Your task to perform on an android device: turn on data saver in the chrome app Image 0: 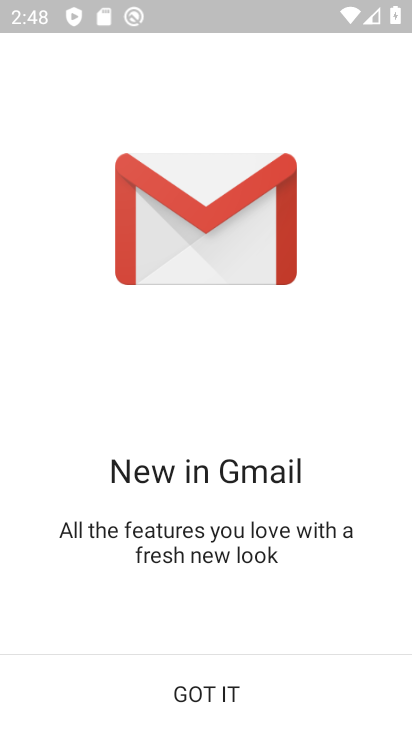
Step 0: click (230, 689)
Your task to perform on an android device: turn on data saver in the chrome app Image 1: 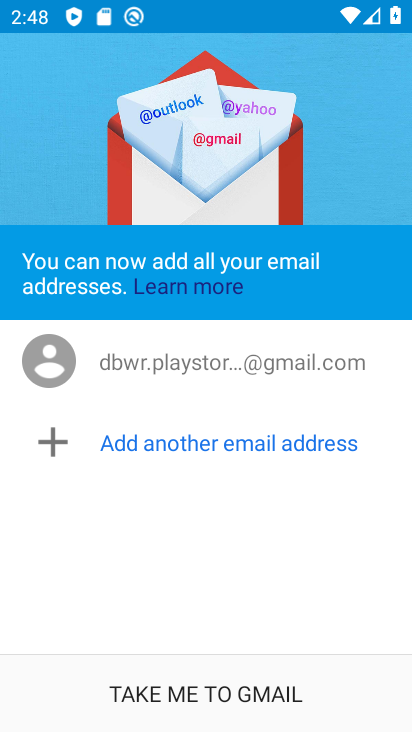
Step 1: click (198, 682)
Your task to perform on an android device: turn on data saver in the chrome app Image 2: 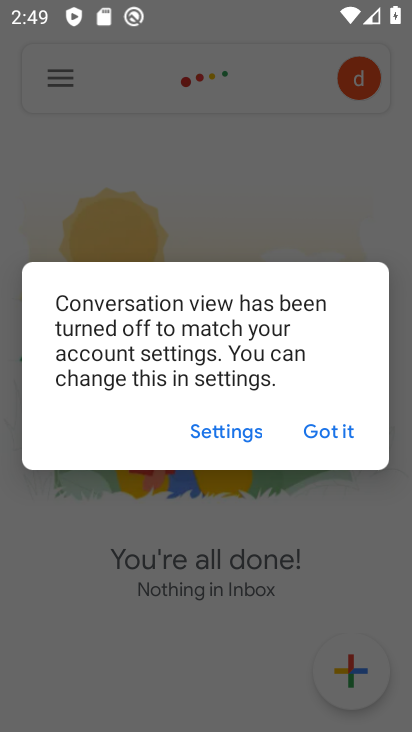
Step 2: click (336, 424)
Your task to perform on an android device: turn on data saver in the chrome app Image 3: 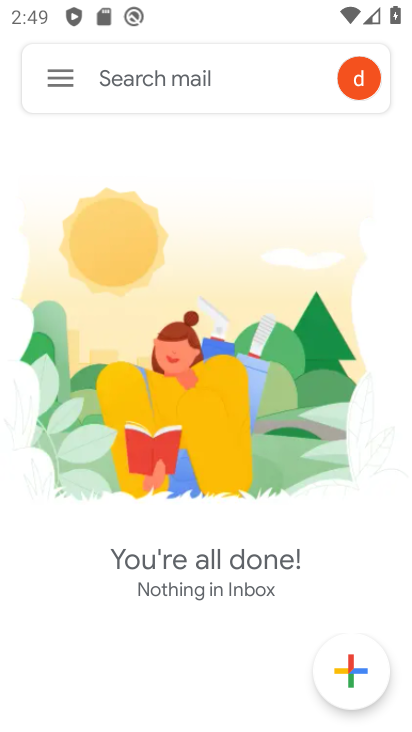
Step 3: click (77, 70)
Your task to perform on an android device: turn on data saver in the chrome app Image 4: 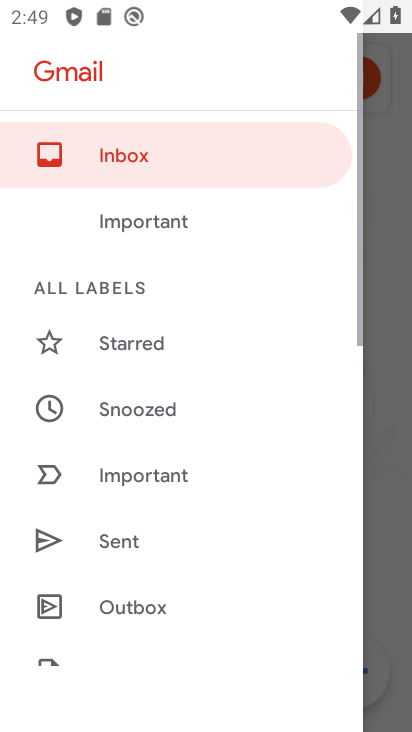
Step 4: drag from (148, 560) to (164, 39)
Your task to perform on an android device: turn on data saver in the chrome app Image 5: 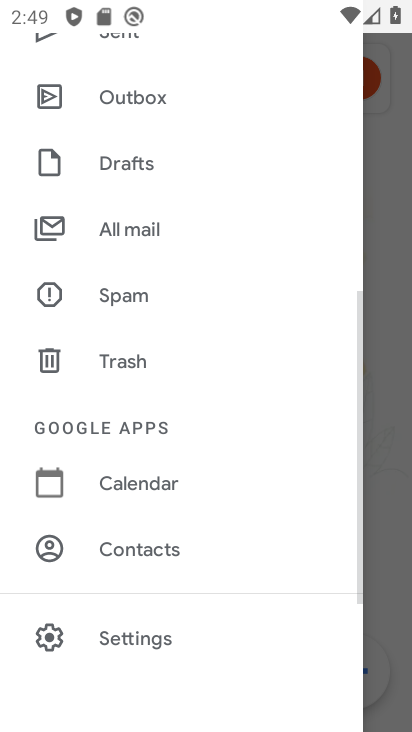
Step 5: drag from (151, 588) to (146, 68)
Your task to perform on an android device: turn on data saver in the chrome app Image 6: 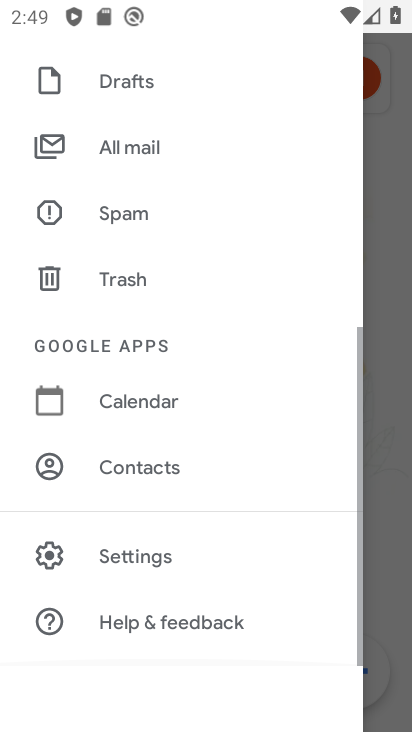
Step 6: click (133, 558)
Your task to perform on an android device: turn on data saver in the chrome app Image 7: 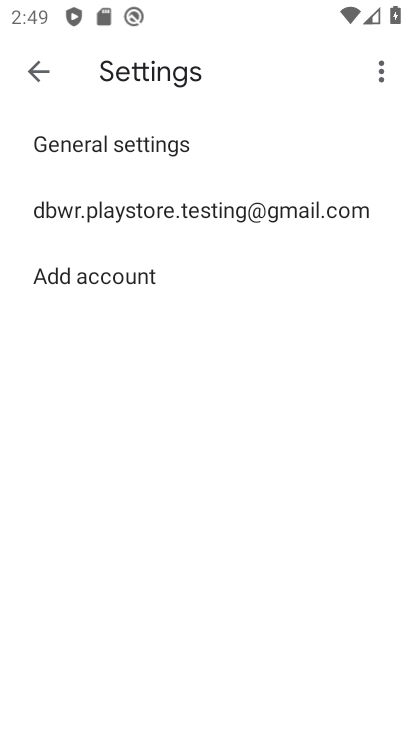
Step 7: click (125, 206)
Your task to perform on an android device: turn on data saver in the chrome app Image 8: 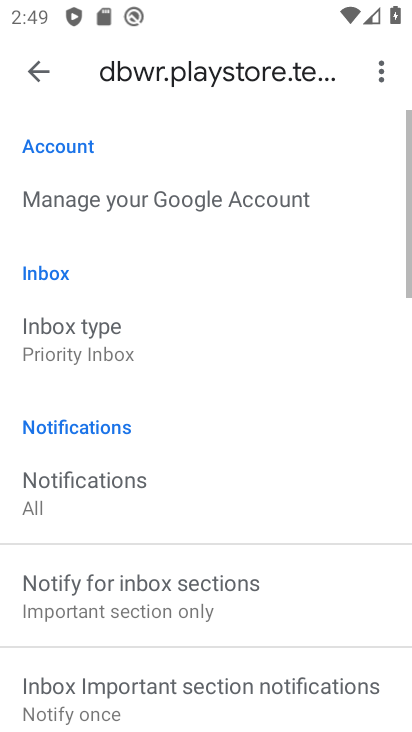
Step 8: drag from (130, 657) to (184, 74)
Your task to perform on an android device: turn on data saver in the chrome app Image 9: 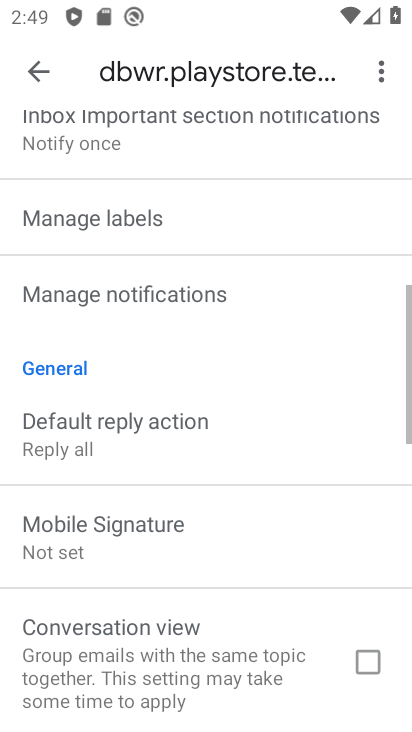
Step 9: drag from (157, 645) to (180, 137)
Your task to perform on an android device: turn on data saver in the chrome app Image 10: 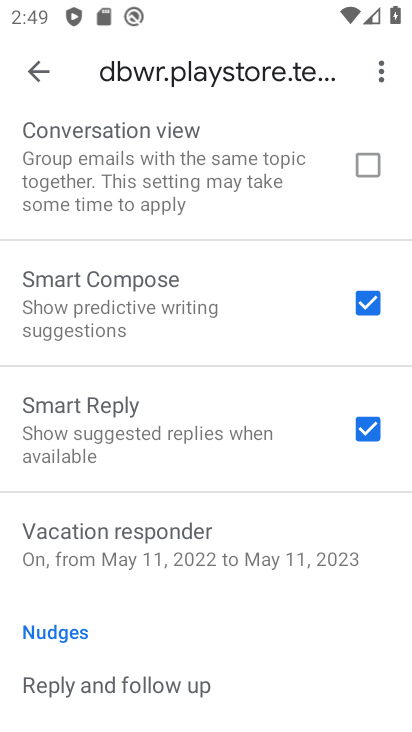
Step 10: drag from (187, 633) to (174, 726)
Your task to perform on an android device: turn on data saver in the chrome app Image 11: 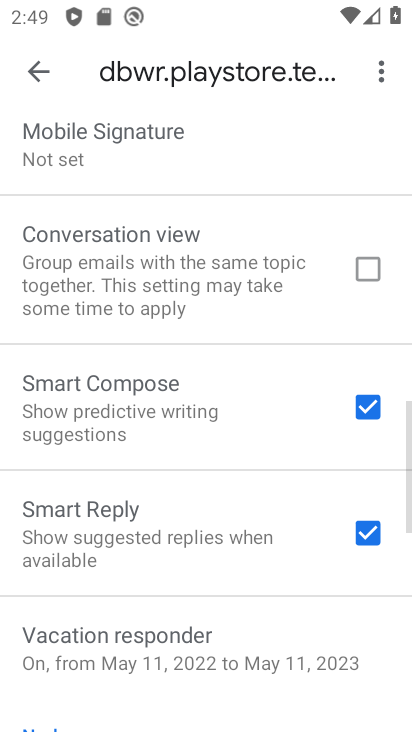
Step 11: drag from (185, 210) to (167, 725)
Your task to perform on an android device: turn on data saver in the chrome app Image 12: 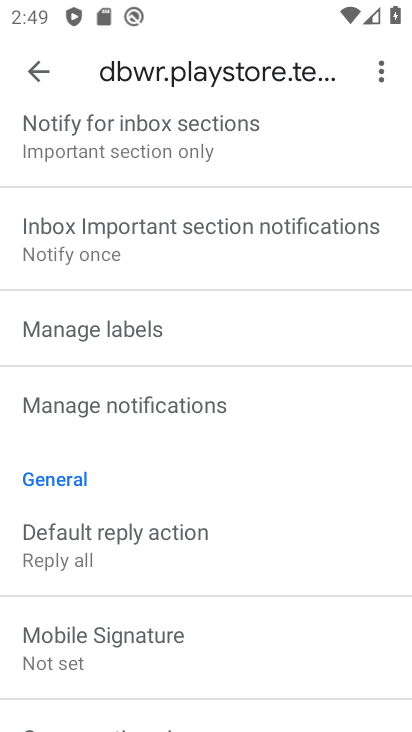
Step 12: press back button
Your task to perform on an android device: turn on data saver in the chrome app Image 13: 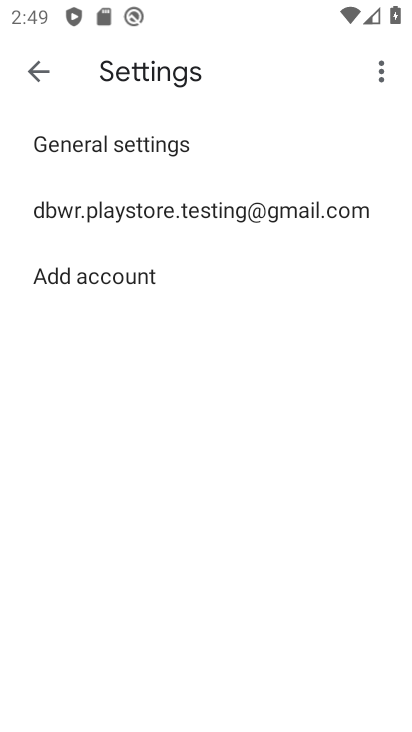
Step 13: press back button
Your task to perform on an android device: turn on data saver in the chrome app Image 14: 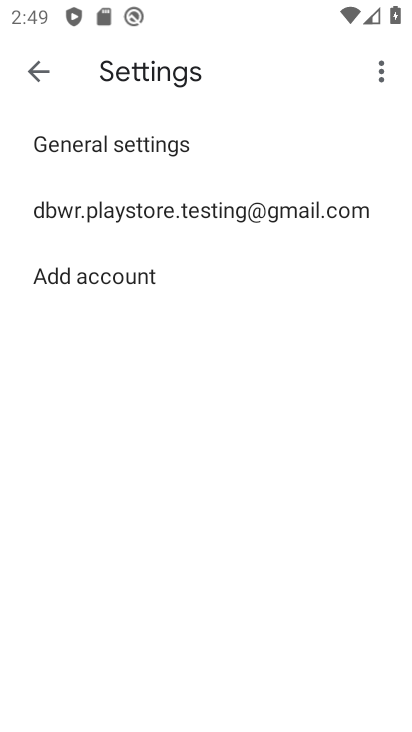
Step 14: press back button
Your task to perform on an android device: turn on data saver in the chrome app Image 15: 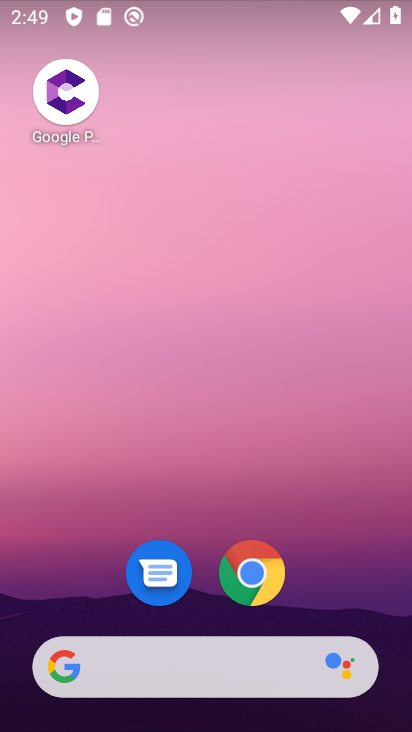
Step 15: click (253, 548)
Your task to perform on an android device: turn on data saver in the chrome app Image 16: 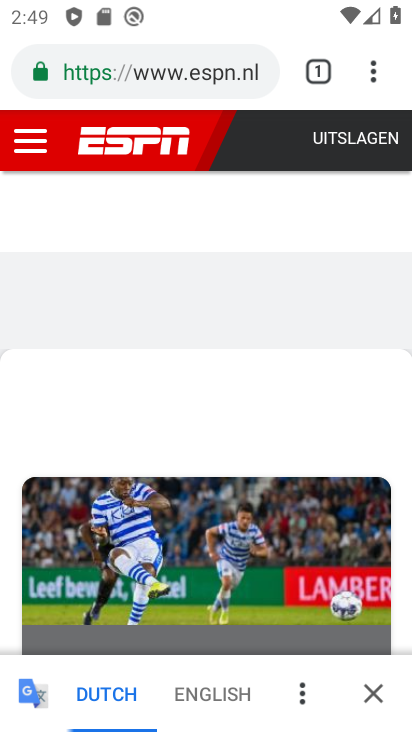
Step 16: drag from (376, 74) to (91, 558)
Your task to perform on an android device: turn on data saver in the chrome app Image 17: 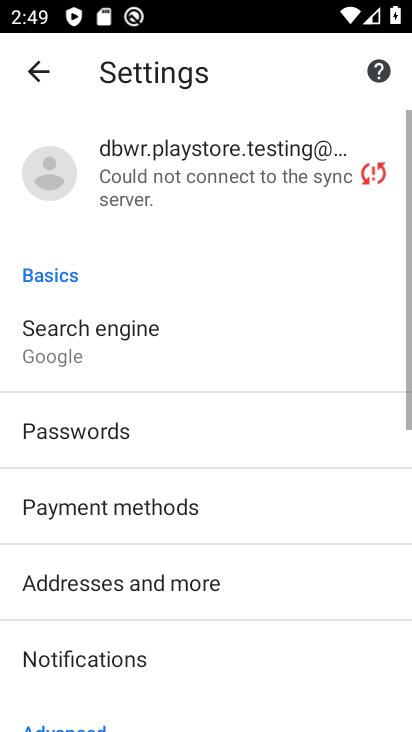
Step 17: drag from (168, 590) to (229, 39)
Your task to perform on an android device: turn on data saver in the chrome app Image 18: 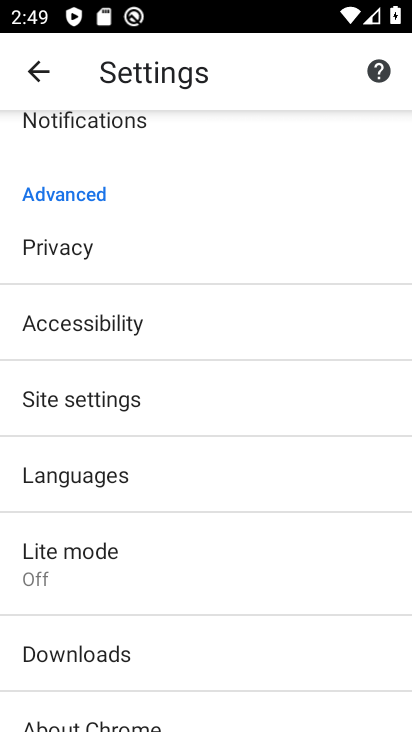
Step 18: click (84, 549)
Your task to perform on an android device: turn on data saver in the chrome app Image 19: 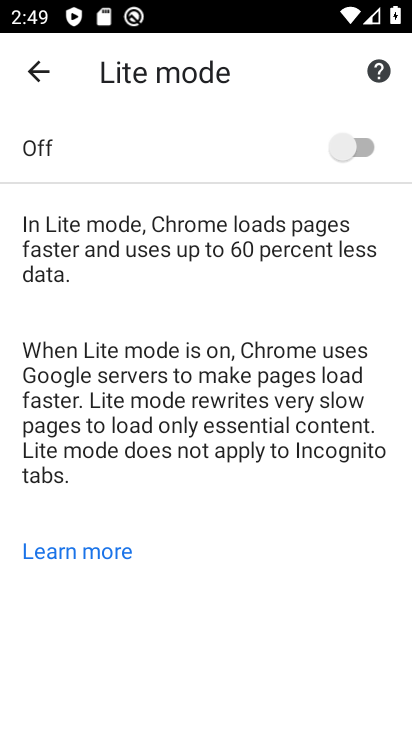
Step 19: click (333, 145)
Your task to perform on an android device: turn on data saver in the chrome app Image 20: 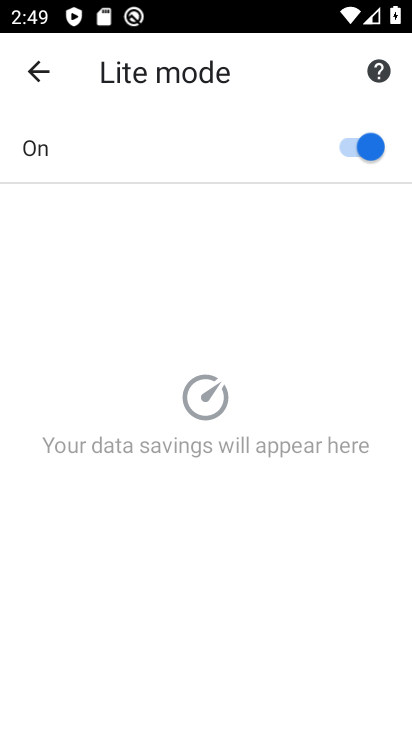
Step 20: task complete